Your task to perform on an android device: Go to wifi settings Image 0: 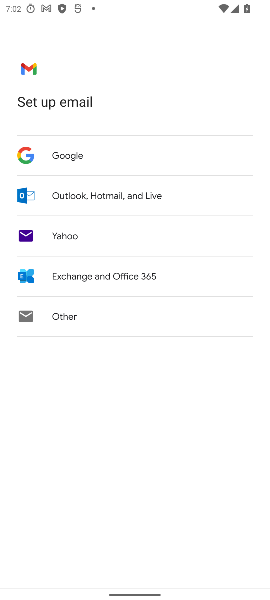
Step 0: press home button
Your task to perform on an android device: Go to wifi settings Image 1: 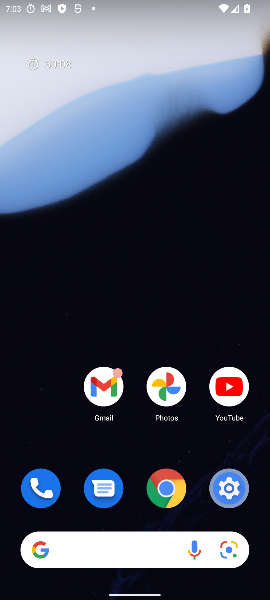
Step 1: drag from (47, 476) to (179, 2)
Your task to perform on an android device: Go to wifi settings Image 2: 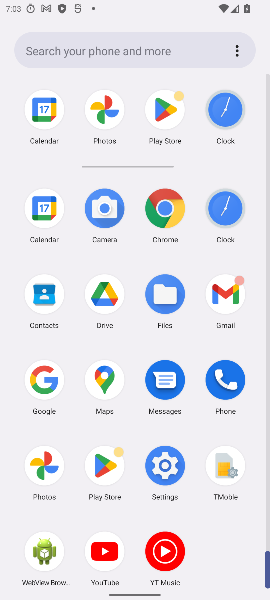
Step 2: click (174, 459)
Your task to perform on an android device: Go to wifi settings Image 3: 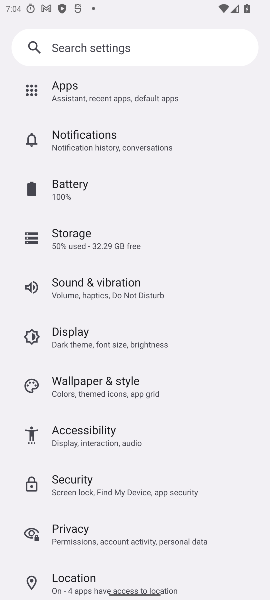
Step 3: drag from (141, 127) to (107, 470)
Your task to perform on an android device: Go to wifi settings Image 4: 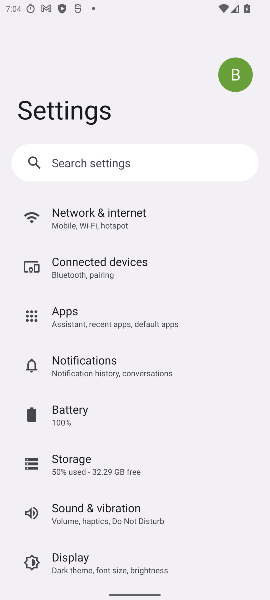
Step 4: click (83, 223)
Your task to perform on an android device: Go to wifi settings Image 5: 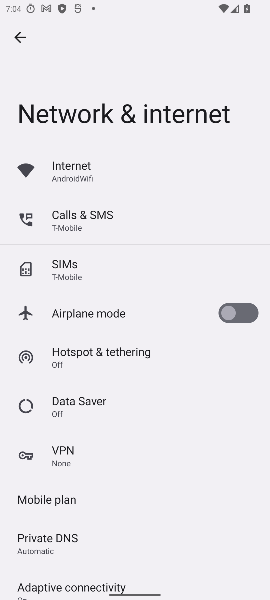
Step 5: click (83, 169)
Your task to perform on an android device: Go to wifi settings Image 6: 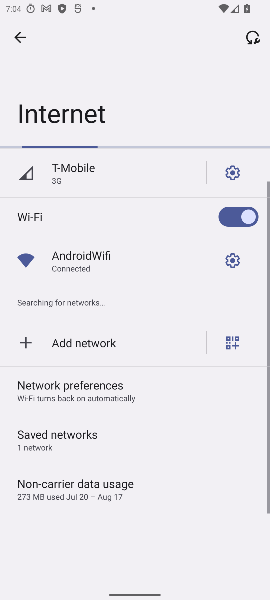
Step 6: click (126, 260)
Your task to perform on an android device: Go to wifi settings Image 7: 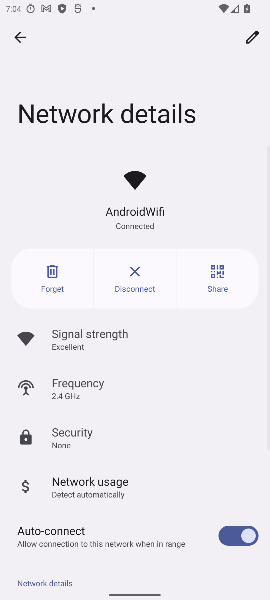
Step 7: task complete